Your task to perform on an android device: check data usage Image 0: 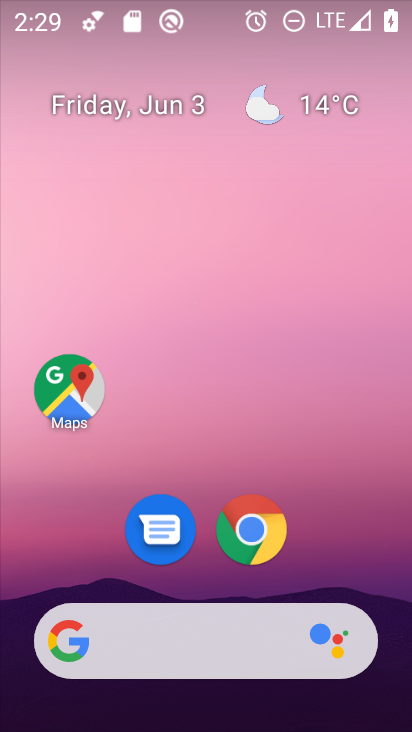
Step 0: drag from (379, 557) to (386, 240)
Your task to perform on an android device: check data usage Image 1: 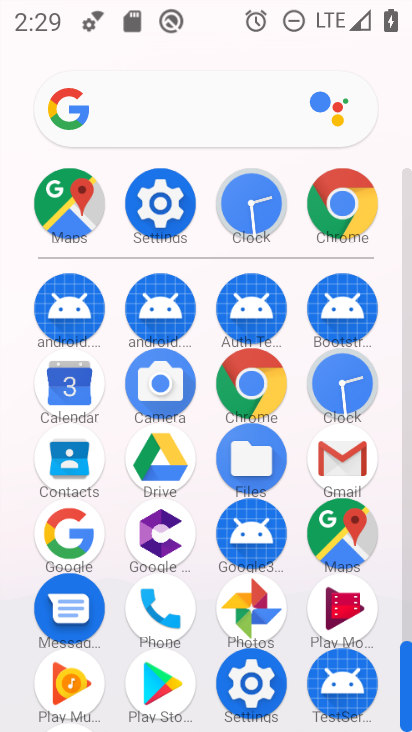
Step 1: click (174, 221)
Your task to perform on an android device: check data usage Image 2: 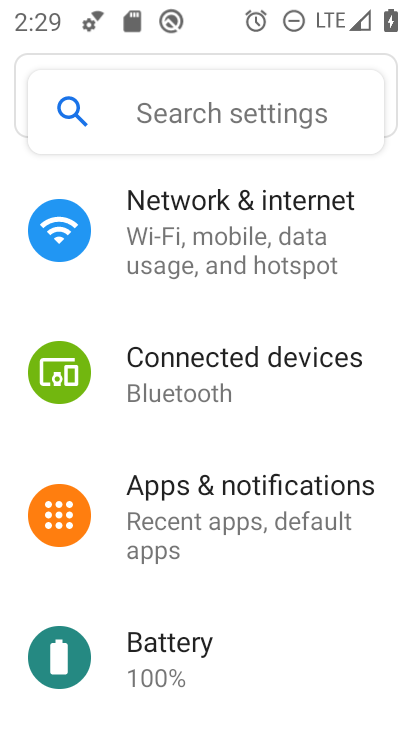
Step 2: drag from (327, 621) to (327, 488)
Your task to perform on an android device: check data usage Image 3: 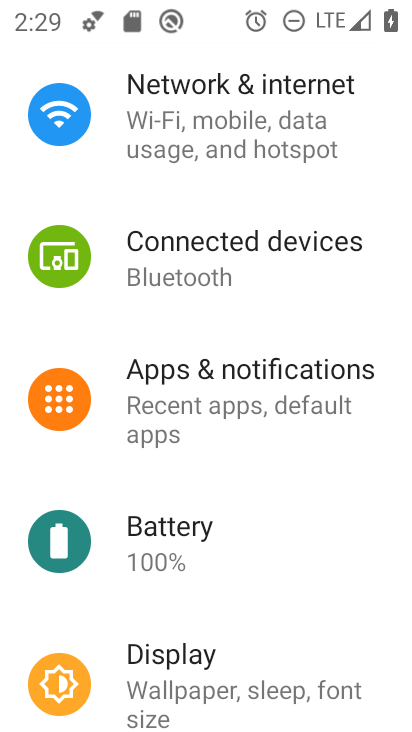
Step 3: drag from (336, 577) to (353, 382)
Your task to perform on an android device: check data usage Image 4: 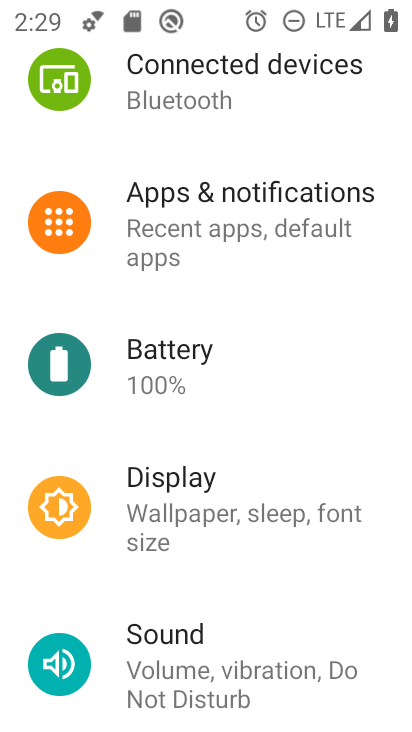
Step 4: drag from (330, 586) to (345, 240)
Your task to perform on an android device: check data usage Image 5: 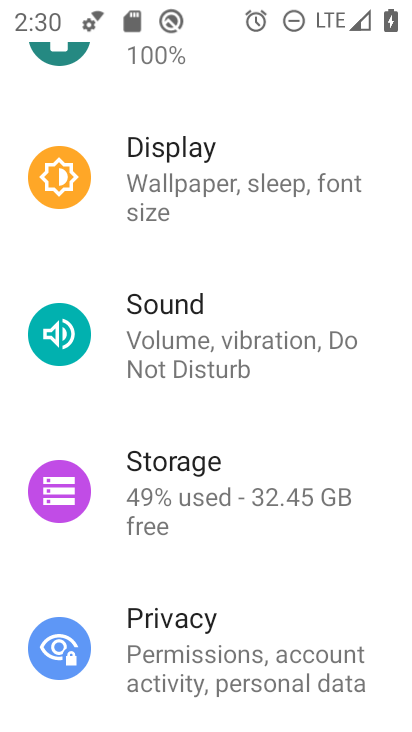
Step 5: drag from (313, 550) to (317, 316)
Your task to perform on an android device: check data usage Image 6: 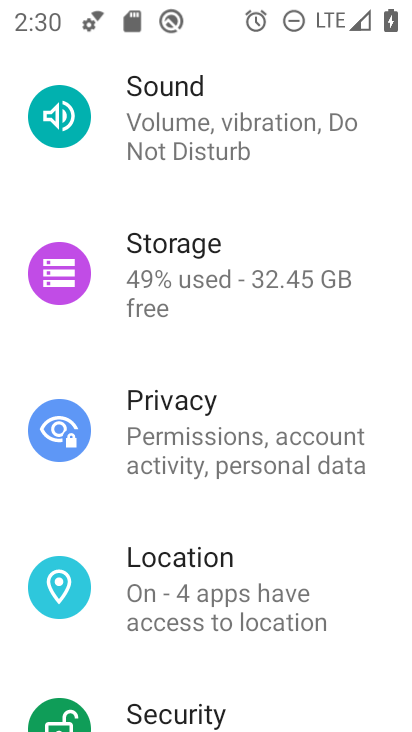
Step 6: drag from (349, 544) to (343, 355)
Your task to perform on an android device: check data usage Image 7: 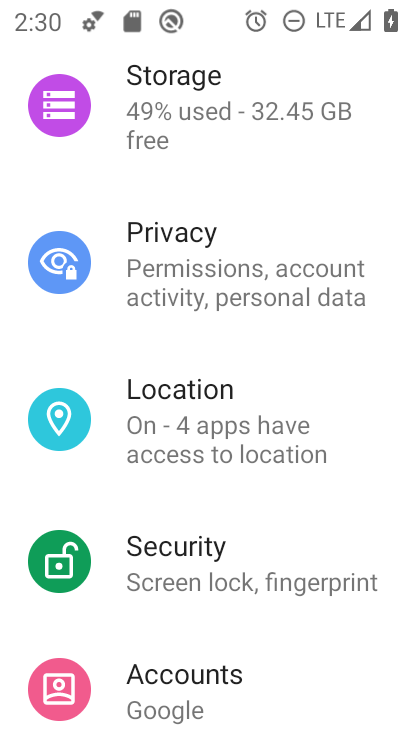
Step 7: drag from (336, 546) to (345, 340)
Your task to perform on an android device: check data usage Image 8: 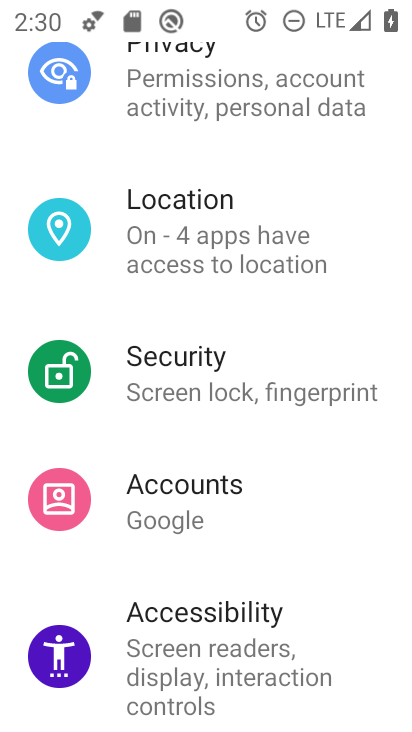
Step 8: drag from (348, 273) to (355, 404)
Your task to perform on an android device: check data usage Image 9: 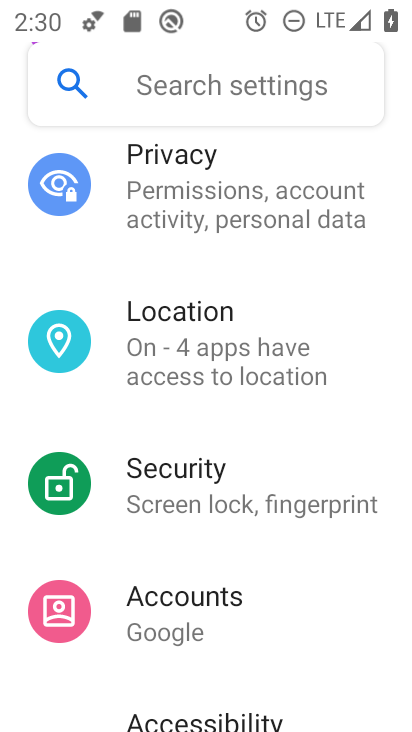
Step 9: drag from (362, 264) to (368, 401)
Your task to perform on an android device: check data usage Image 10: 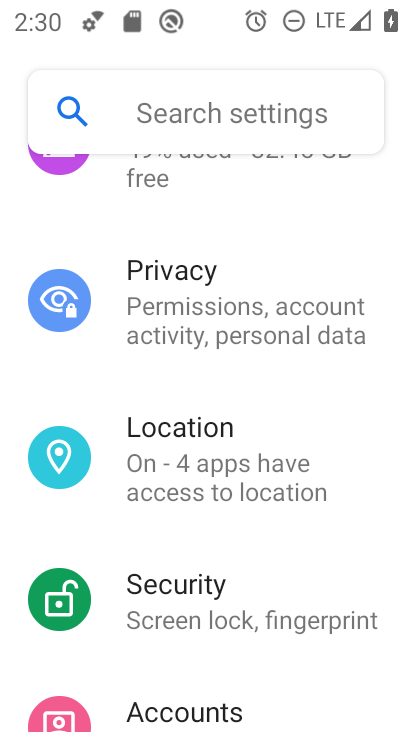
Step 10: drag from (346, 171) to (353, 286)
Your task to perform on an android device: check data usage Image 11: 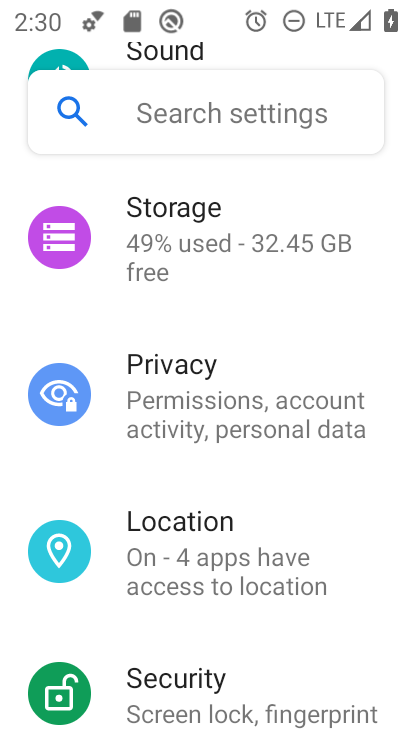
Step 11: drag from (364, 190) to (380, 305)
Your task to perform on an android device: check data usage Image 12: 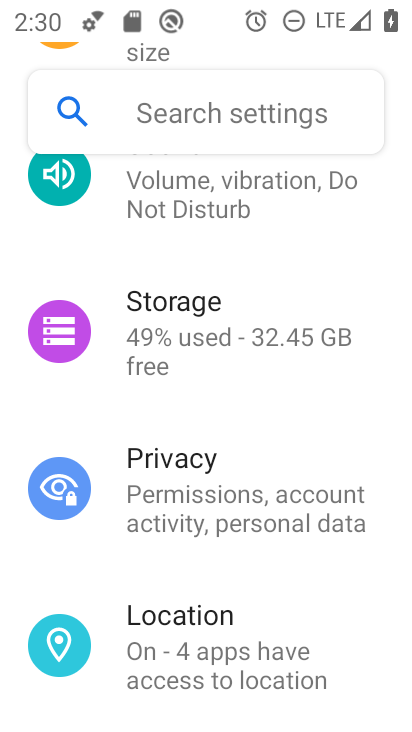
Step 12: drag from (370, 220) to (371, 337)
Your task to perform on an android device: check data usage Image 13: 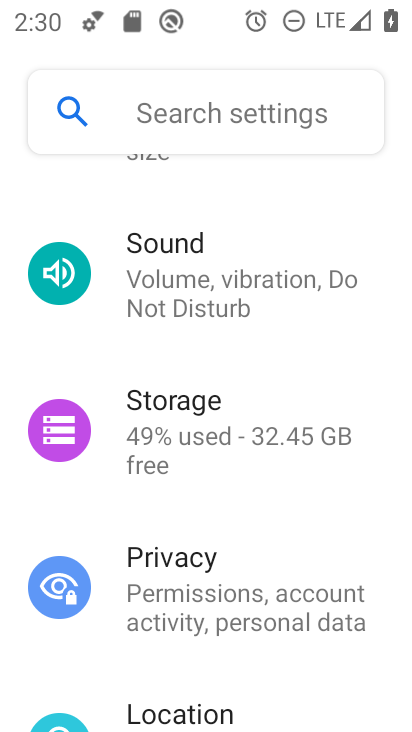
Step 13: drag from (358, 207) to (375, 344)
Your task to perform on an android device: check data usage Image 14: 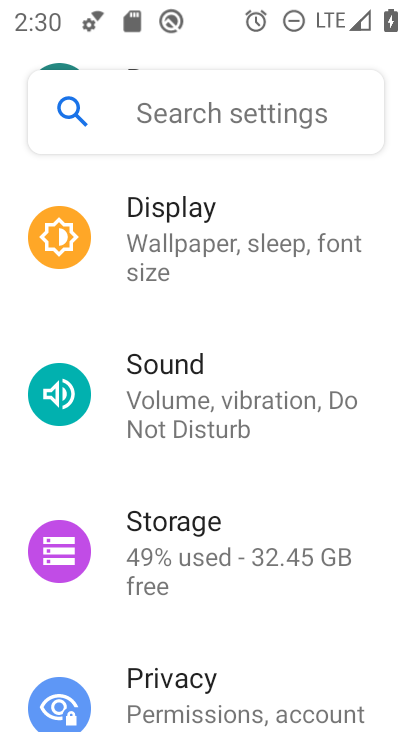
Step 14: drag from (361, 196) to (357, 373)
Your task to perform on an android device: check data usage Image 15: 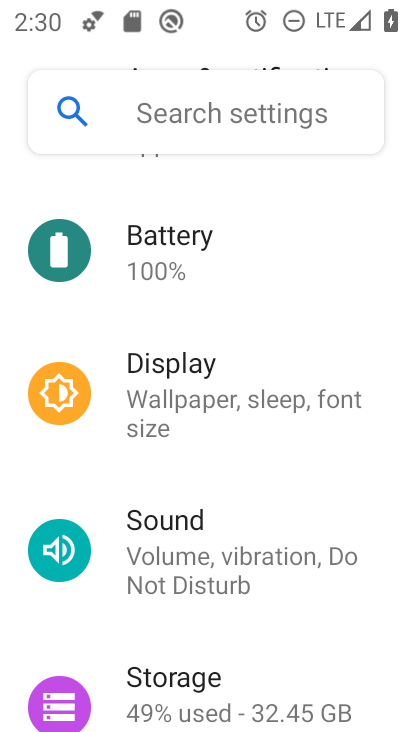
Step 15: drag from (336, 225) to (339, 390)
Your task to perform on an android device: check data usage Image 16: 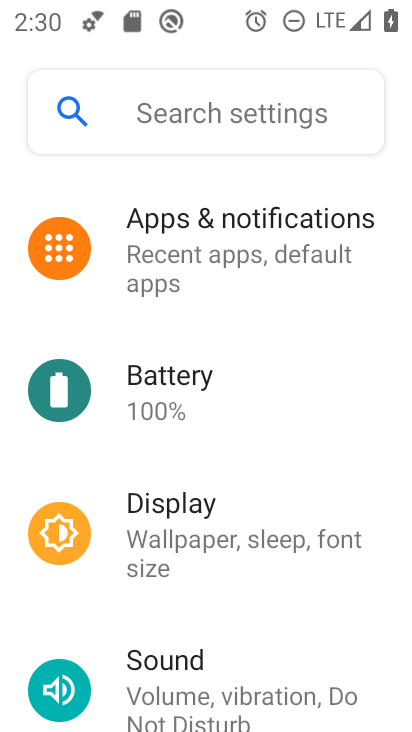
Step 16: drag from (325, 181) to (319, 451)
Your task to perform on an android device: check data usage Image 17: 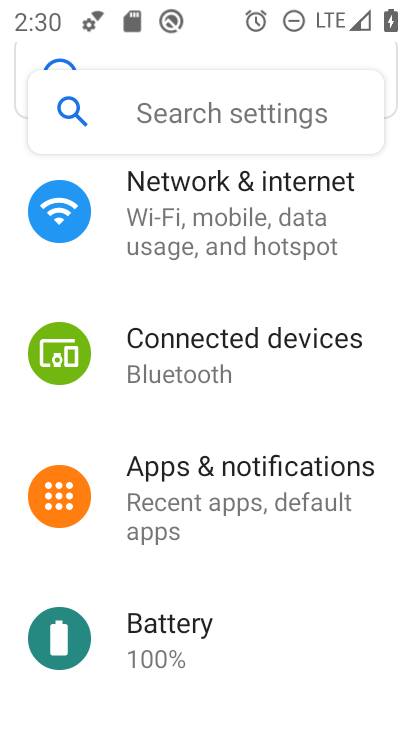
Step 17: click (264, 213)
Your task to perform on an android device: check data usage Image 18: 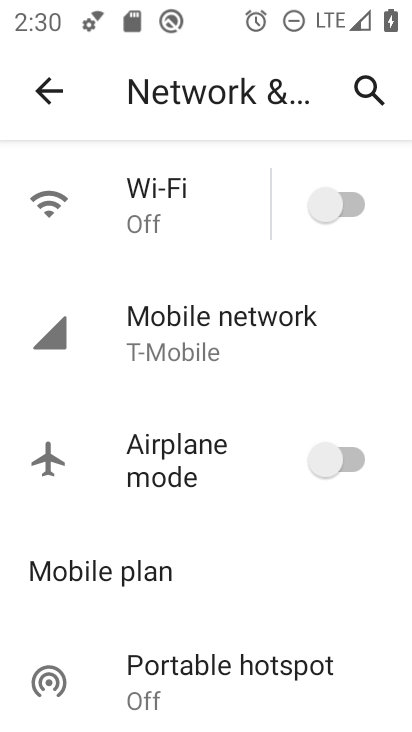
Step 18: drag from (242, 505) to (241, 318)
Your task to perform on an android device: check data usage Image 19: 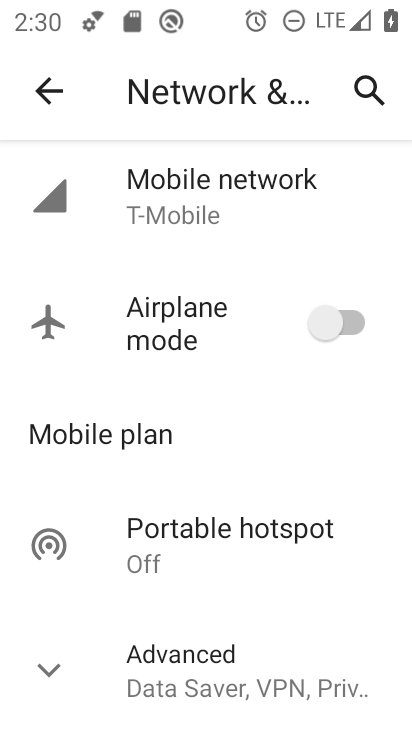
Step 19: click (196, 185)
Your task to perform on an android device: check data usage Image 20: 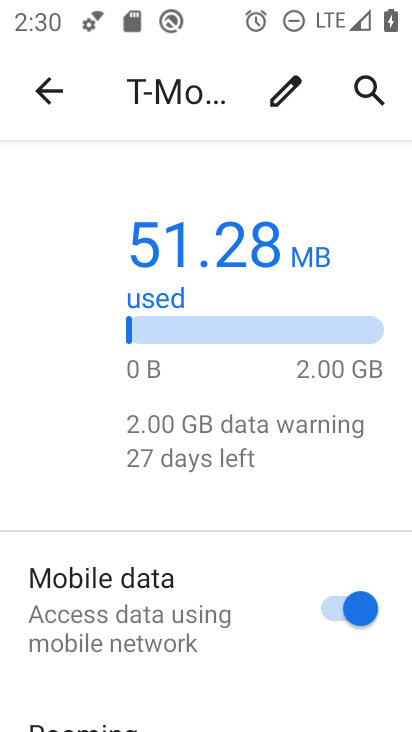
Step 20: drag from (239, 534) to (237, 327)
Your task to perform on an android device: check data usage Image 21: 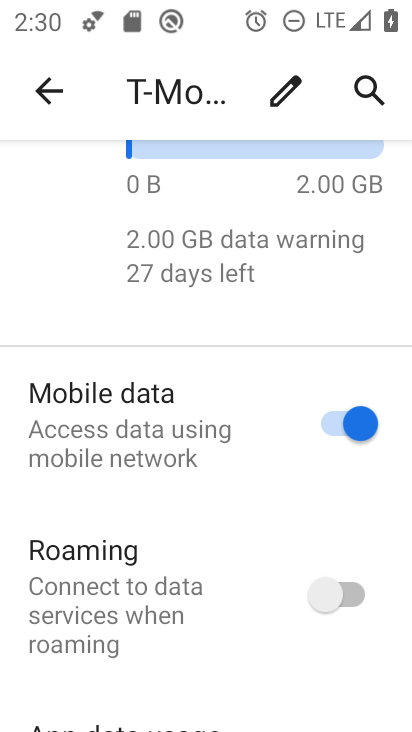
Step 21: drag from (243, 581) to (238, 353)
Your task to perform on an android device: check data usage Image 22: 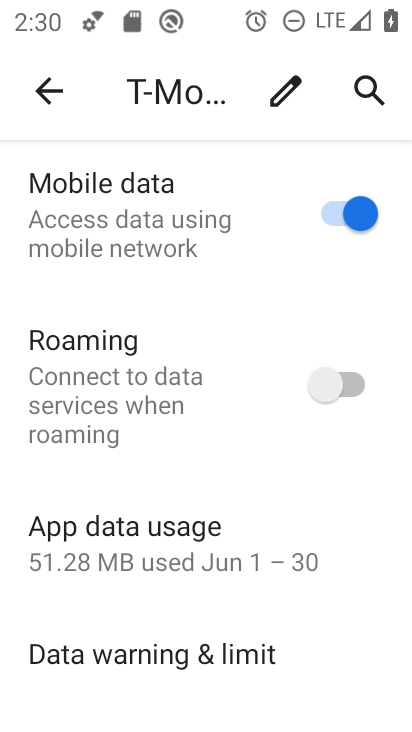
Step 22: click (229, 558)
Your task to perform on an android device: check data usage Image 23: 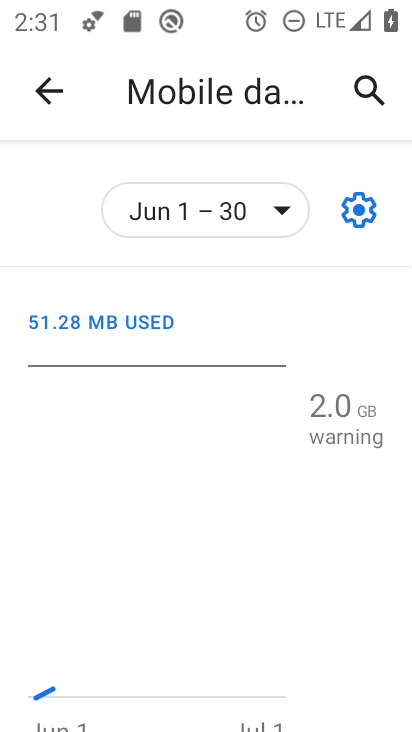
Step 23: task complete